Your task to perform on an android device: Go to privacy settings Image 0: 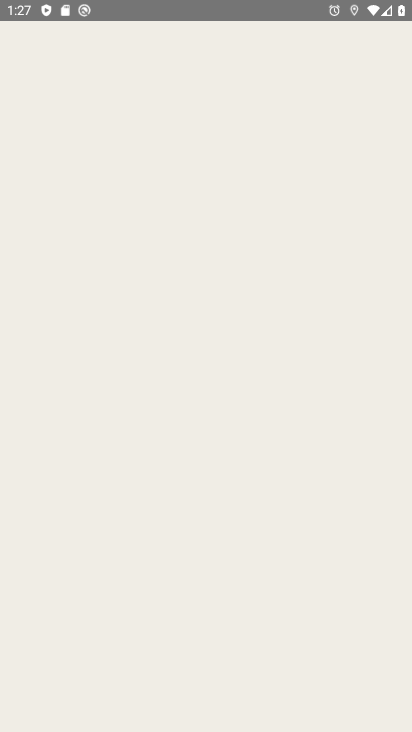
Step 0: press home button
Your task to perform on an android device: Go to privacy settings Image 1: 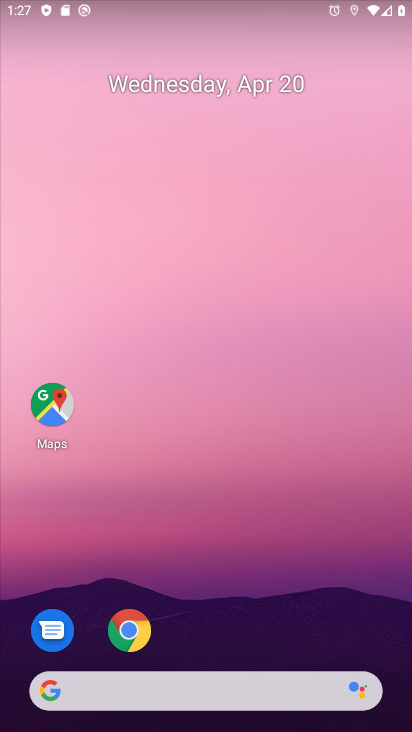
Step 1: click (131, 641)
Your task to perform on an android device: Go to privacy settings Image 2: 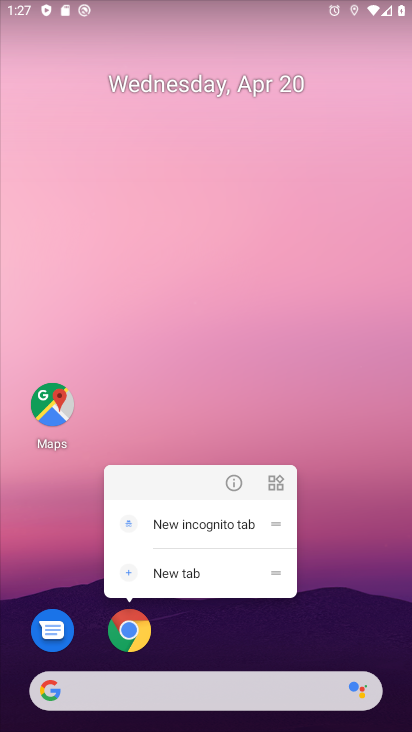
Step 2: click (132, 639)
Your task to perform on an android device: Go to privacy settings Image 3: 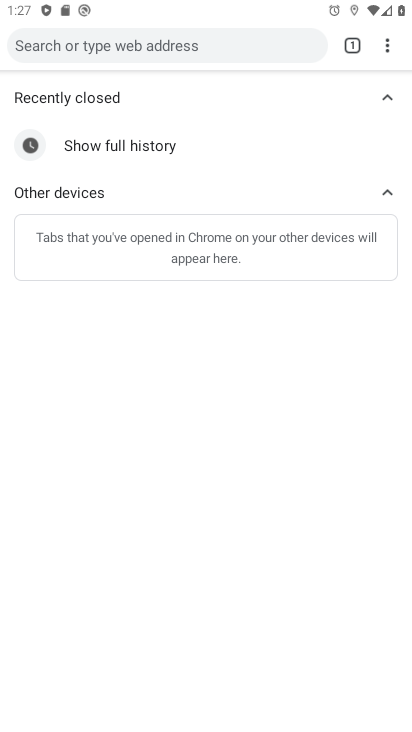
Step 3: click (387, 46)
Your task to perform on an android device: Go to privacy settings Image 4: 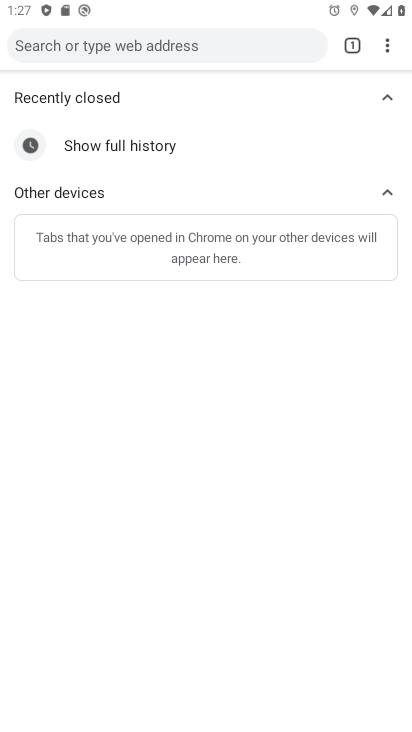
Step 4: drag from (387, 46) to (219, 386)
Your task to perform on an android device: Go to privacy settings Image 5: 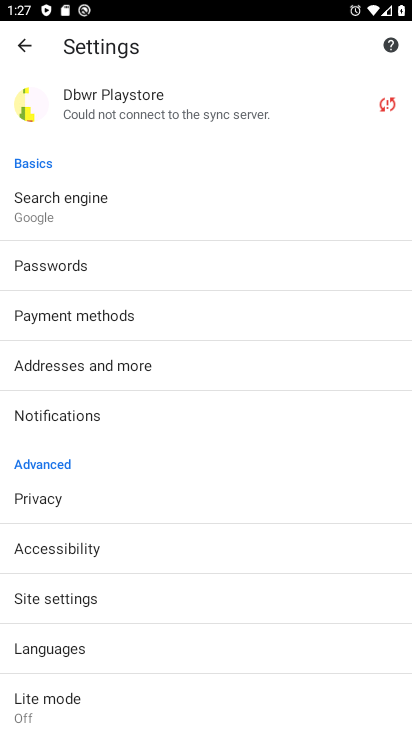
Step 5: click (44, 499)
Your task to perform on an android device: Go to privacy settings Image 6: 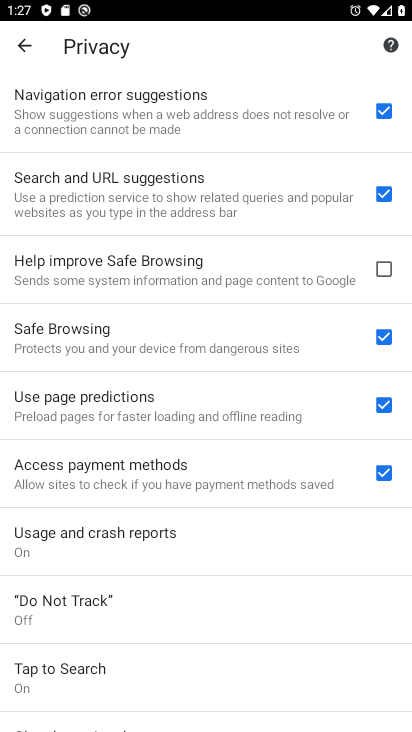
Step 6: task complete